Your task to perform on an android device: Show me popular games on the Play Store Image 0: 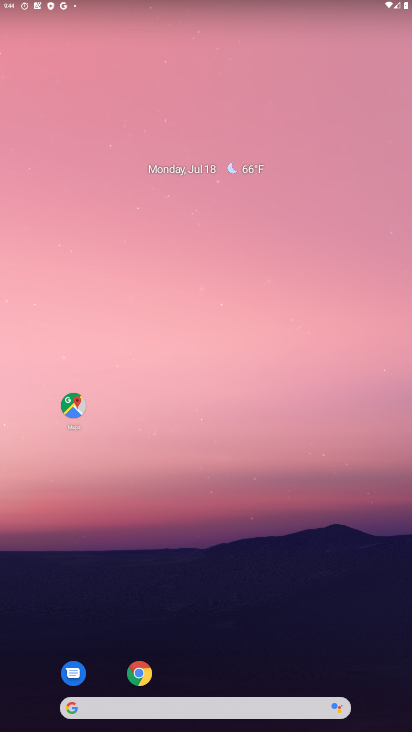
Step 0: drag from (214, 656) to (298, 35)
Your task to perform on an android device: Show me popular games on the Play Store Image 1: 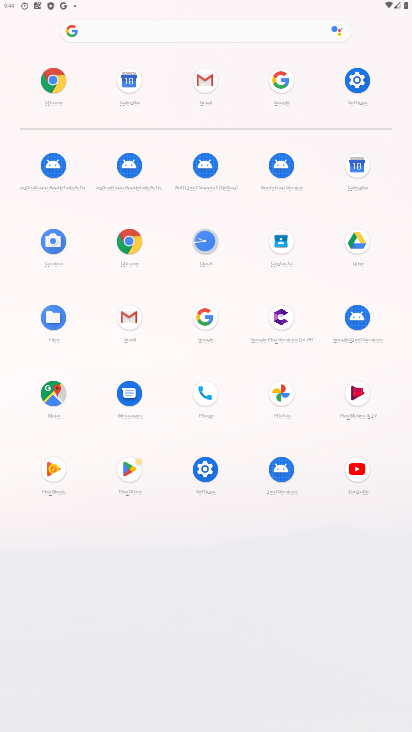
Step 1: click (126, 470)
Your task to perform on an android device: Show me popular games on the Play Store Image 2: 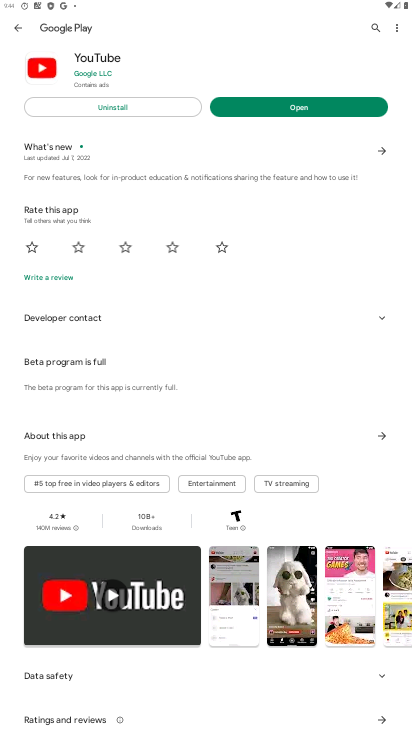
Step 2: press back button
Your task to perform on an android device: Show me popular games on the Play Store Image 3: 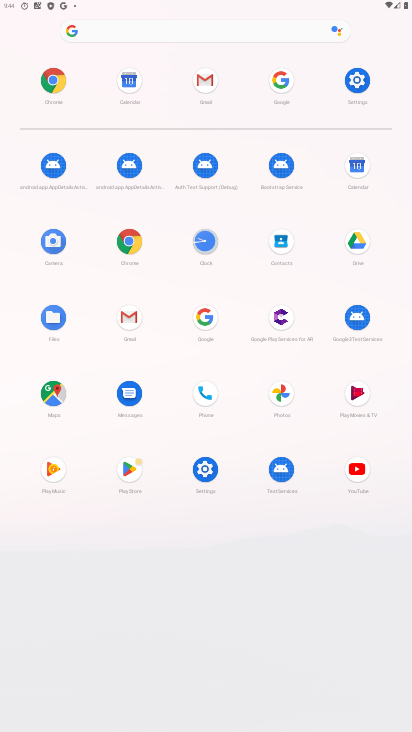
Step 3: click (127, 469)
Your task to perform on an android device: Show me popular games on the Play Store Image 4: 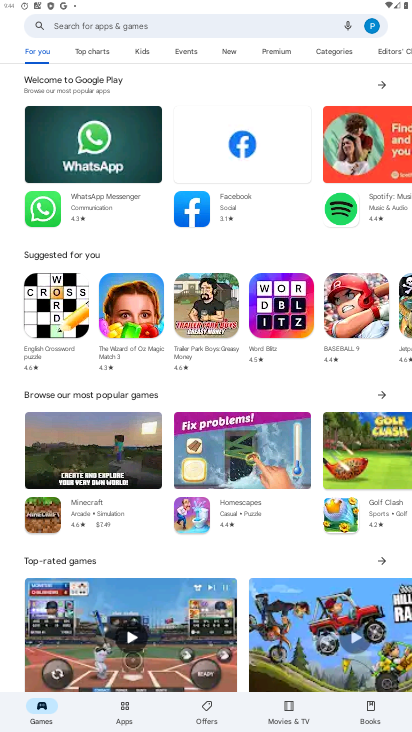
Step 4: drag from (145, 228) to (135, 291)
Your task to perform on an android device: Show me popular games on the Play Store Image 5: 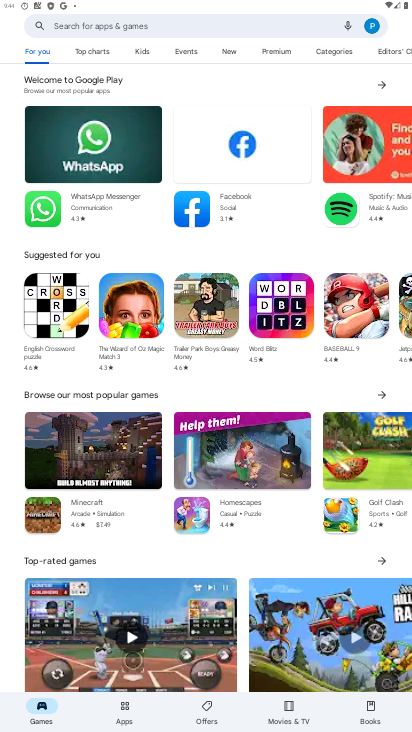
Step 5: click (312, 391)
Your task to perform on an android device: Show me popular games on the Play Store Image 6: 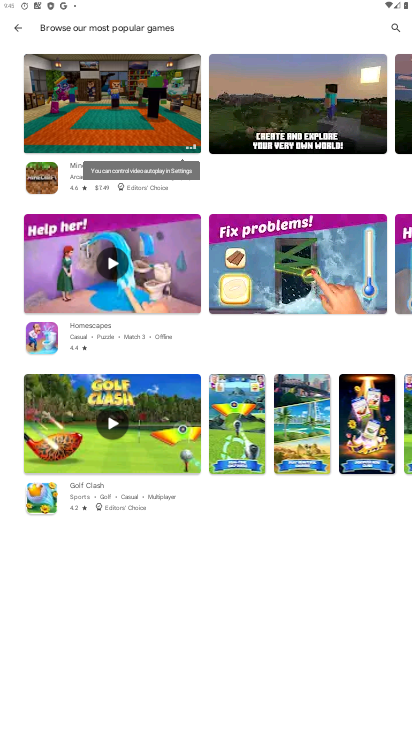
Step 6: task complete